Your task to perform on an android device: Open Google Maps Image 0: 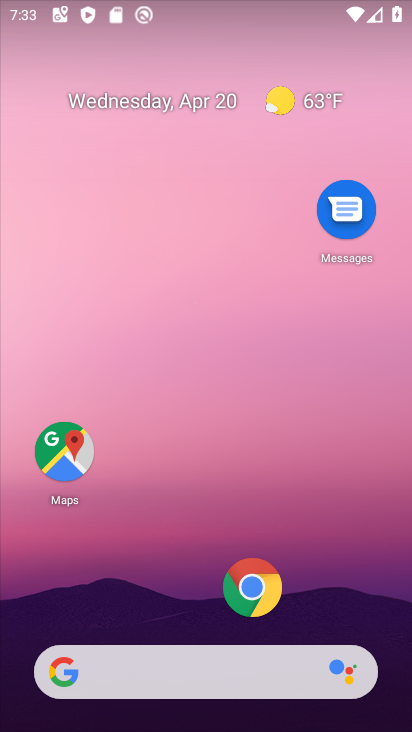
Step 0: drag from (165, 666) to (306, 93)
Your task to perform on an android device: Open Google Maps Image 1: 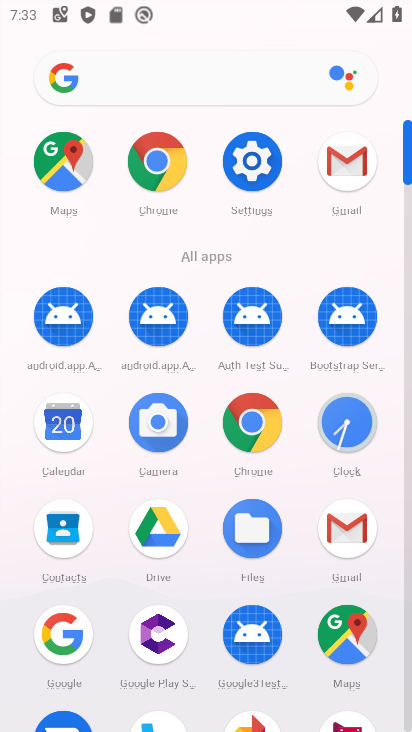
Step 1: click (55, 172)
Your task to perform on an android device: Open Google Maps Image 2: 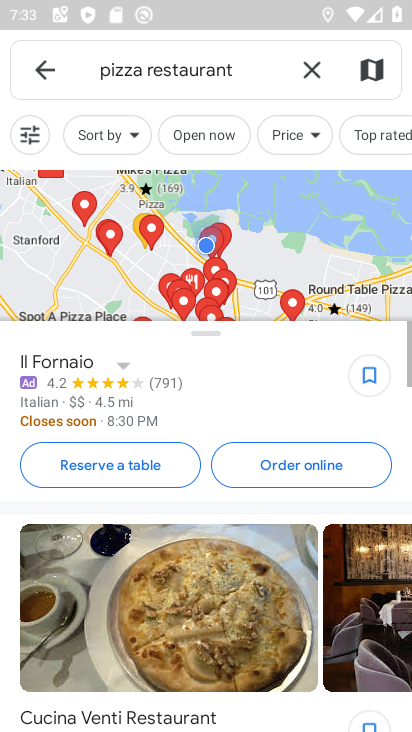
Step 2: click (48, 66)
Your task to perform on an android device: Open Google Maps Image 3: 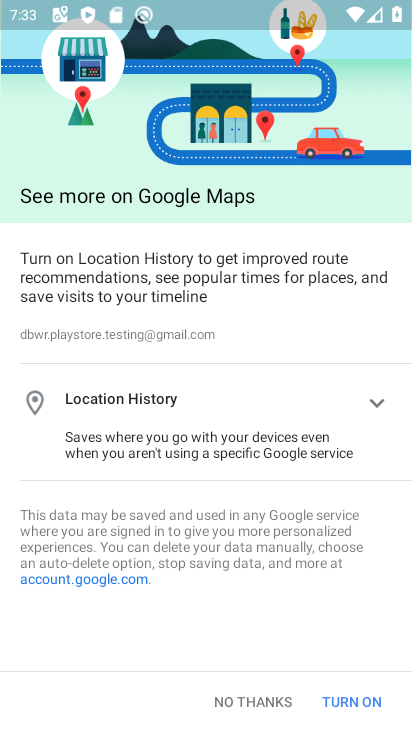
Step 3: click (253, 697)
Your task to perform on an android device: Open Google Maps Image 4: 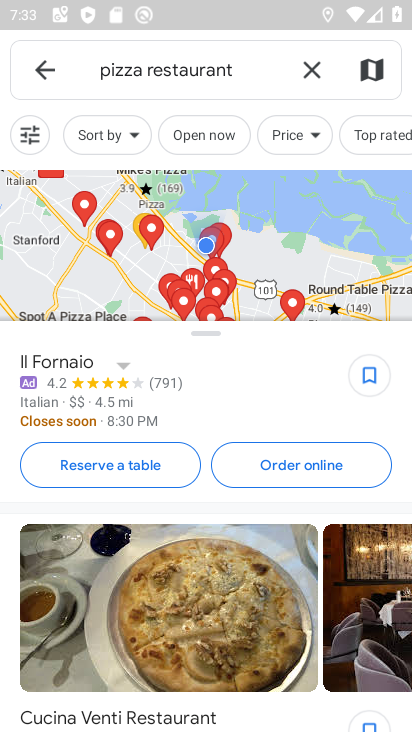
Step 4: click (38, 65)
Your task to perform on an android device: Open Google Maps Image 5: 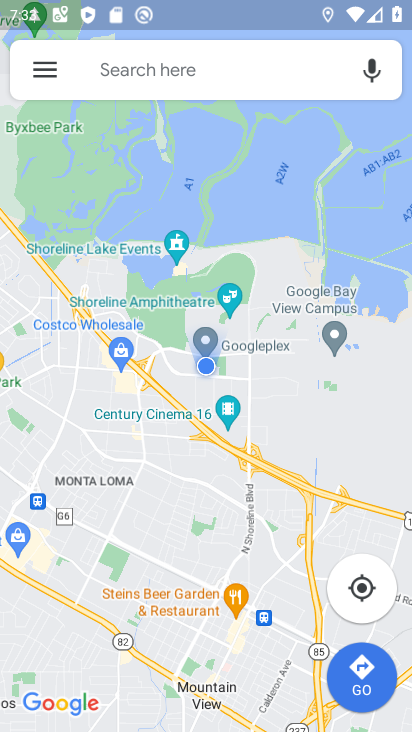
Step 5: task complete